Your task to perform on an android device: Open settings on Google Maps Image 0: 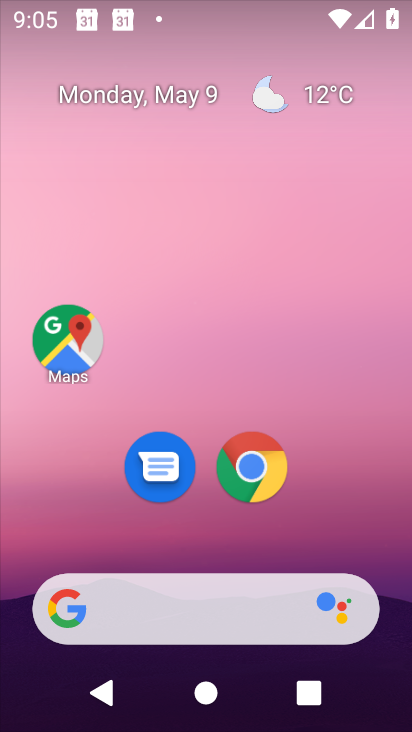
Step 0: click (66, 334)
Your task to perform on an android device: Open settings on Google Maps Image 1: 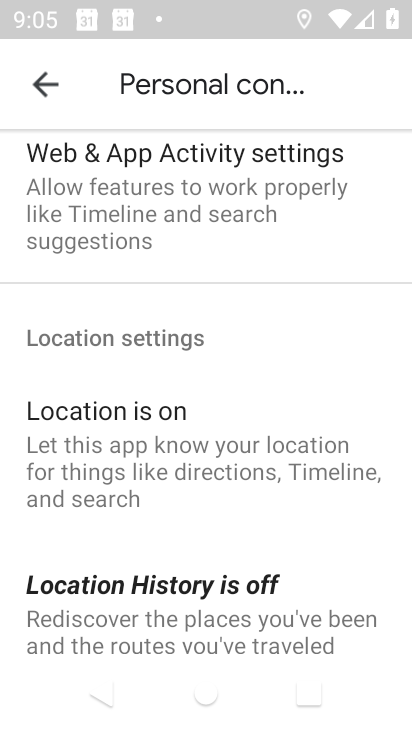
Step 1: click (39, 86)
Your task to perform on an android device: Open settings on Google Maps Image 2: 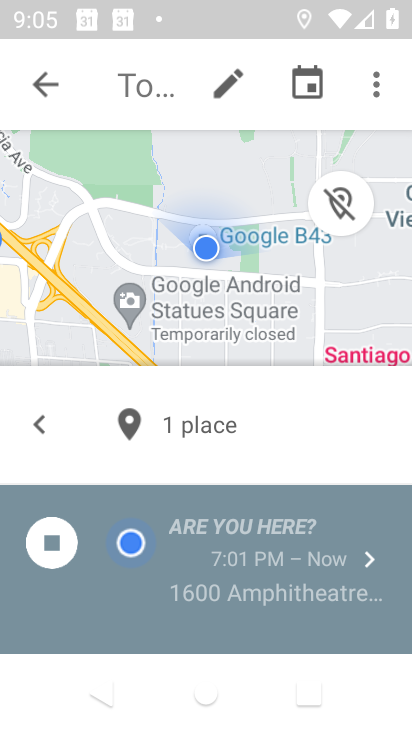
Step 2: click (39, 86)
Your task to perform on an android device: Open settings on Google Maps Image 3: 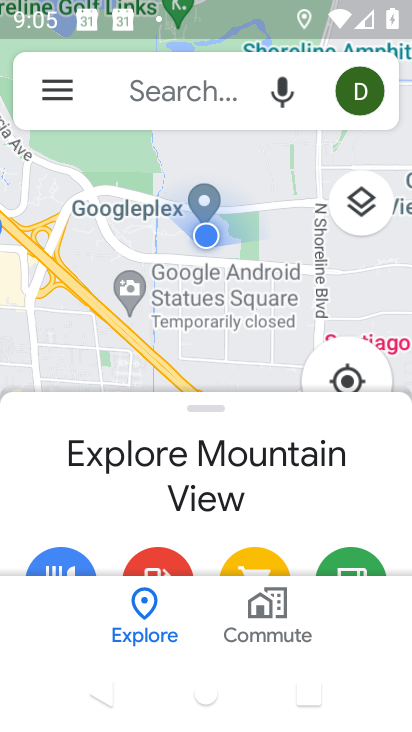
Step 3: click (39, 86)
Your task to perform on an android device: Open settings on Google Maps Image 4: 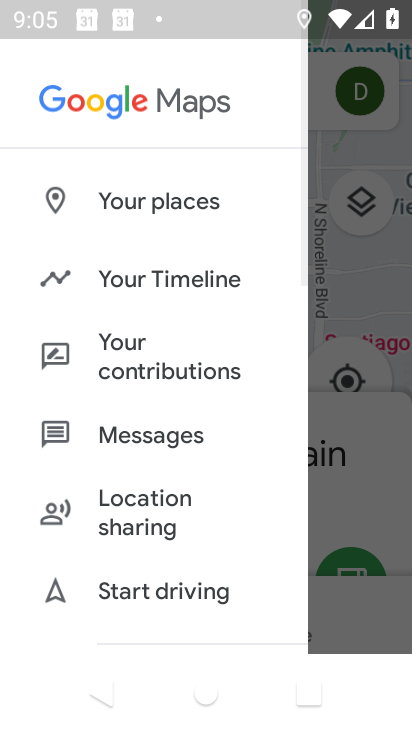
Step 4: drag from (198, 533) to (195, 44)
Your task to perform on an android device: Open settings on Google Maps Image 5: 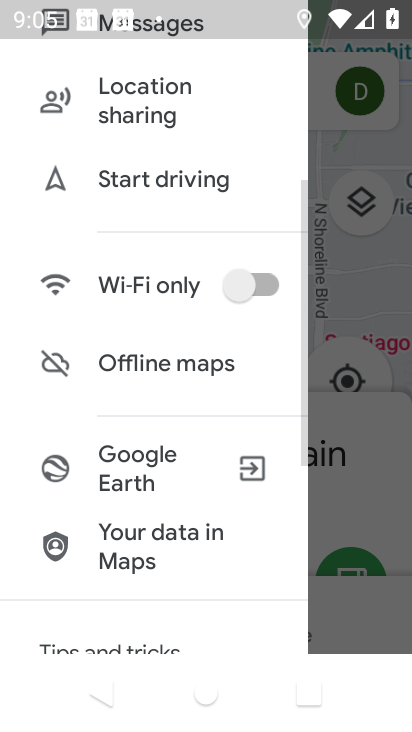
Step 5: drag from (144, 524) to (156, 112)
Your task to perform on an android device: Open settings on Google Maps Image 6: 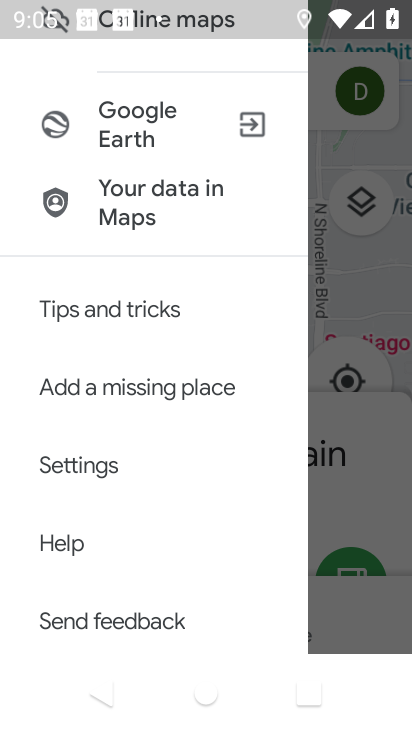
Step 6: click (80, 466)
Your task to perform on an android device: Open settings on Google Maps Image 7: 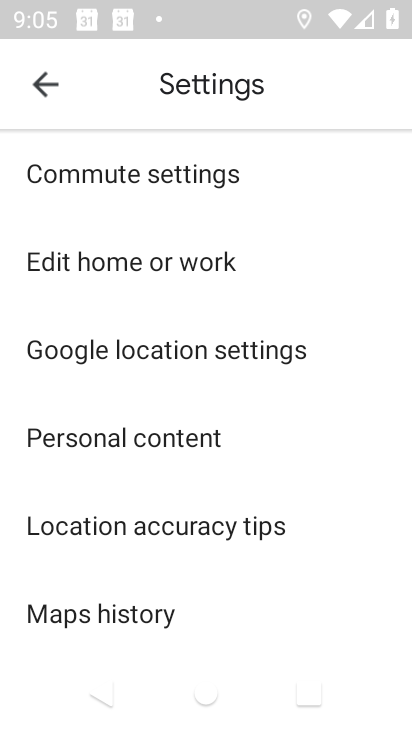
Step 7: task complete